Your task to perform on an android device: turn on bluetooth scan Image 0: 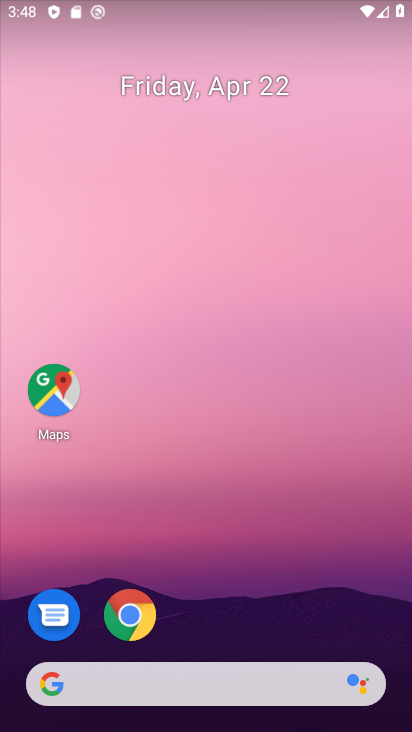
Step 0: drag from (214, 628) to (268, 161)
Your task to perform on an android device: turn on bluetooth scan Image 1: 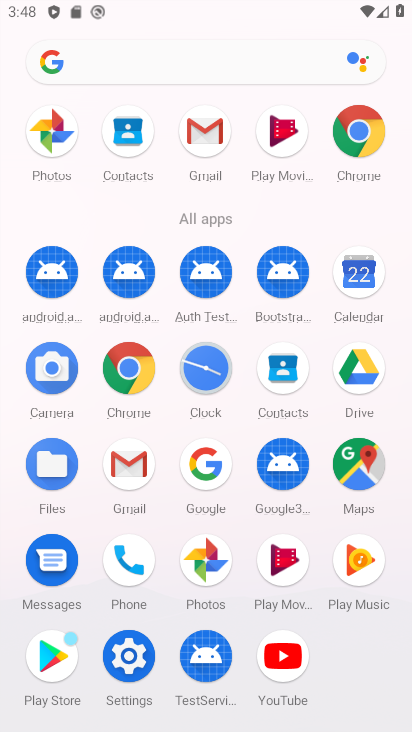
Step 1: click (138, 666)
Your task to perform on an android device: turn on bluetooth scan Image 2: 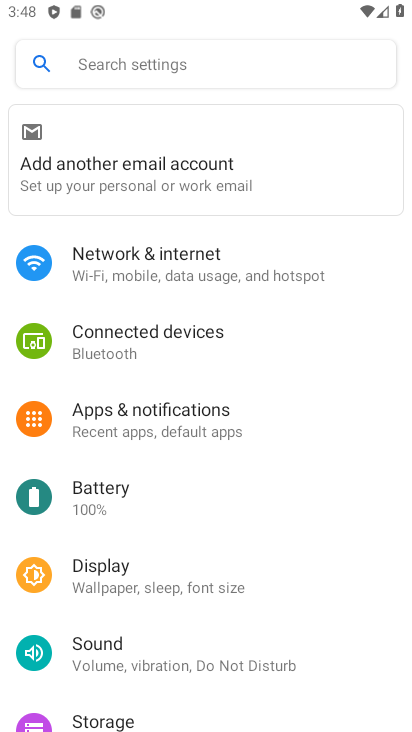
Step 2: drag from (167, 644) to (229, 244)
Your task to perform on an android device: turn on bluetooth scan Image 3: 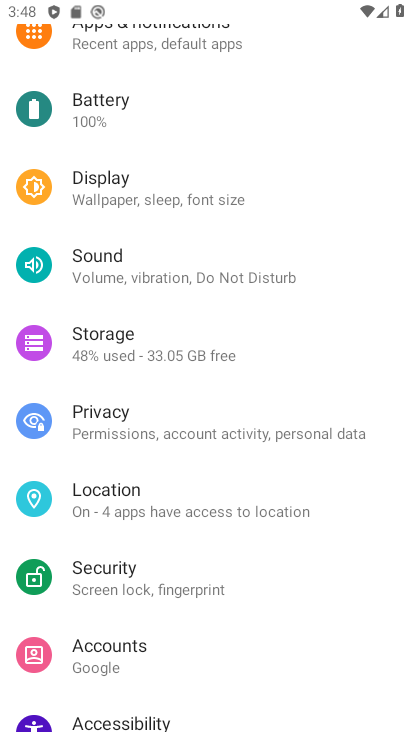
Step 3: click (157, 515)
Your task to perform on an android device: turn on bluetooth scan Image 4: 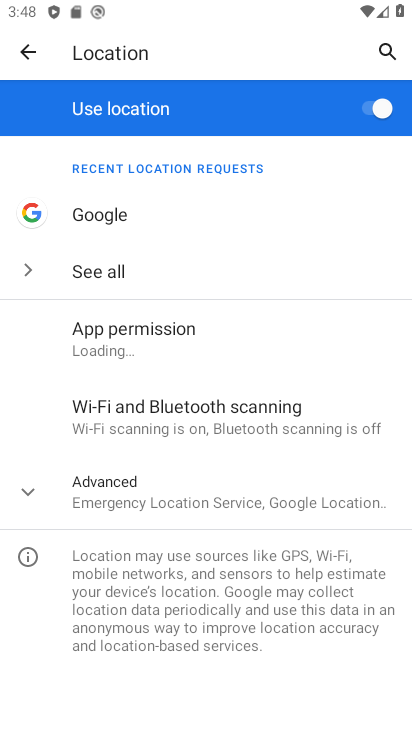
Step 4: click (232, 423)
Your task to perform on an android device: turn on bluetooth scan Image 5: 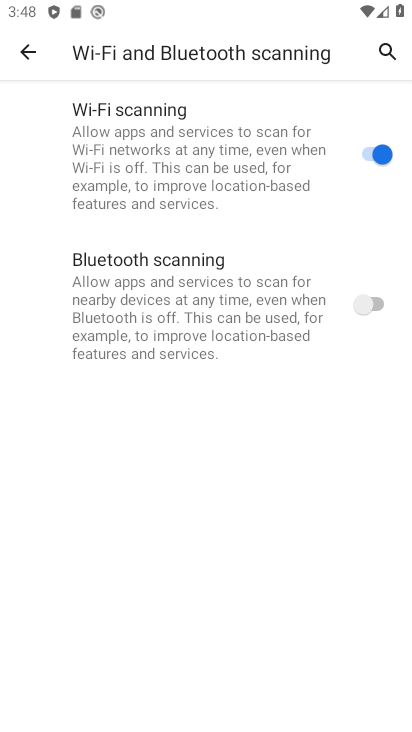
Step 5: click (370, 300)
Your task to perform on an android device: turn on bluetooth scan Image 6: 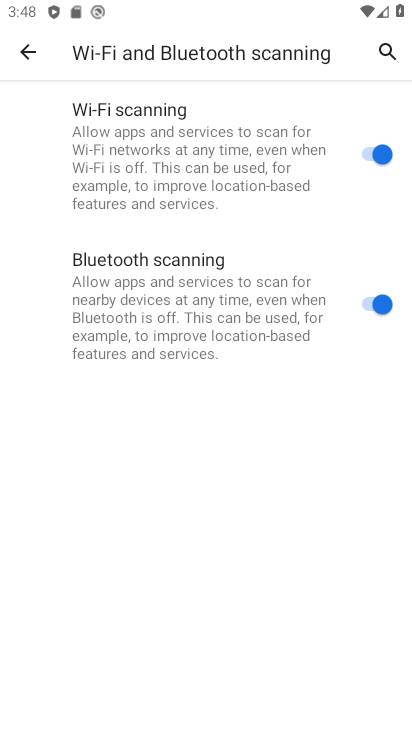
Step 6: task complete